Your task to perform on an android device: Go to network settings Image 0: 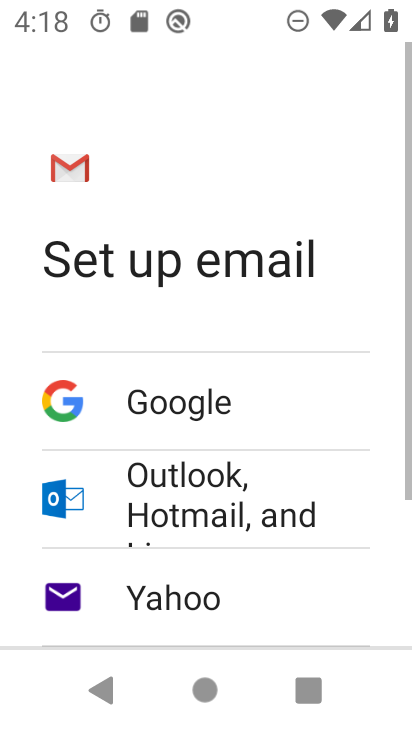
Step 0: press home button
Your task to perform on an android device: Go to network settings Image 1: 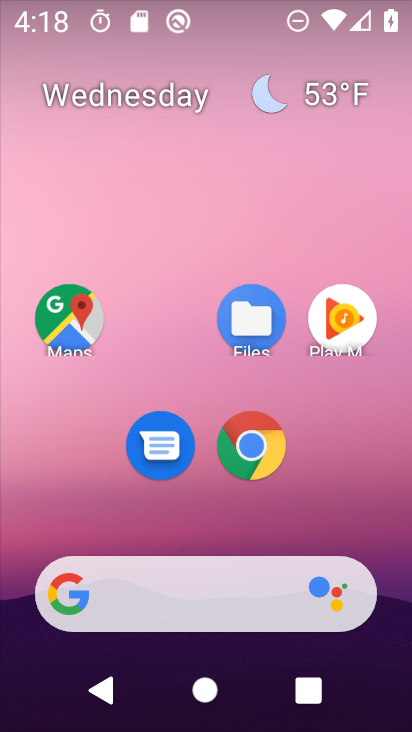
Step 1: drag from (314, 419) to (277, 53)
Your task to perform on an android device: Go to network settings Image 2: 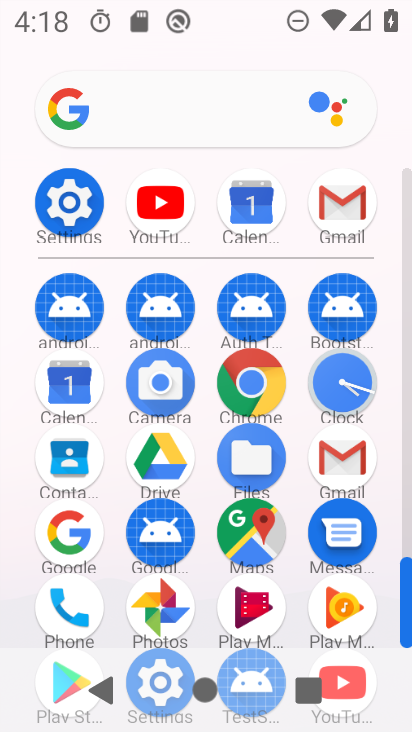
Step 2: click (73, 212)
Your task to perform on an android device: Go to network settings Image 3: 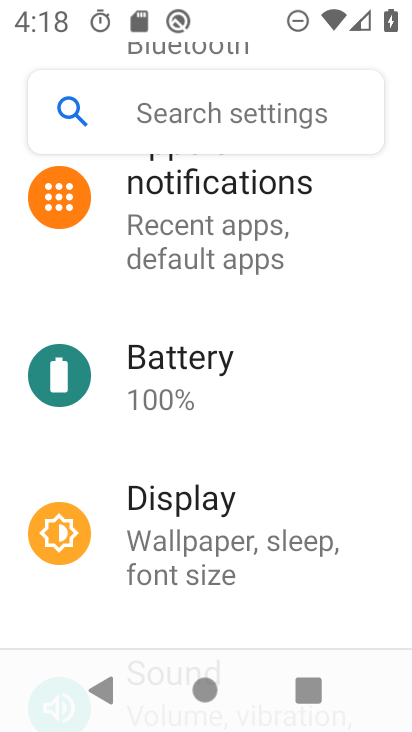
Step 3: drag from (271, 254) to (286, 565)
Your task to perform on an android device: Go to network settings Image 4: 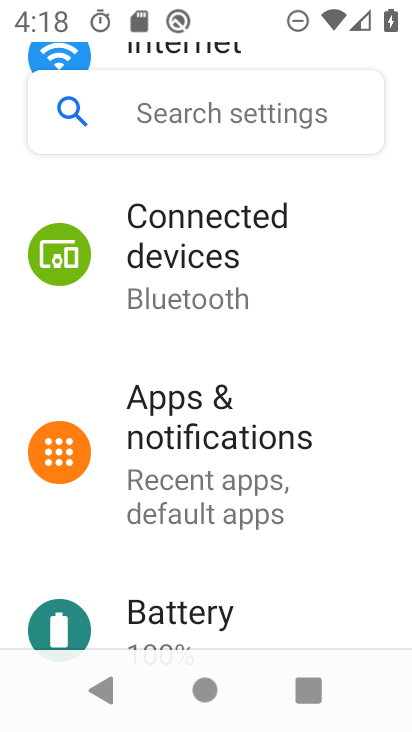
Step 4: drag from (352, 286) to (361, 560)
Your task to perform on an android device: Go to network settings Image 5: 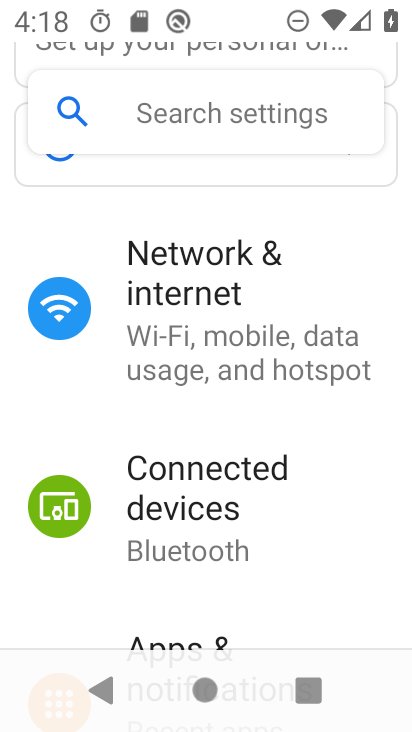
Step 5: click (293, 277)
Your task to perform on an android device: Go to network settings Image 6: 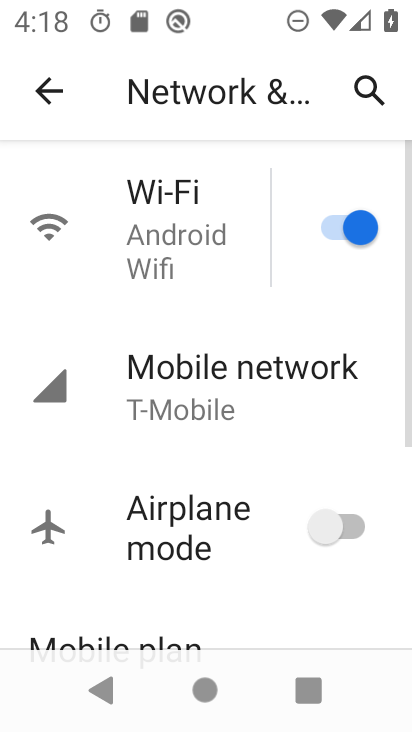
Step 6: task complete